Your task to perform on an android device: see tabs open on other devices in the chrome app Image 0: 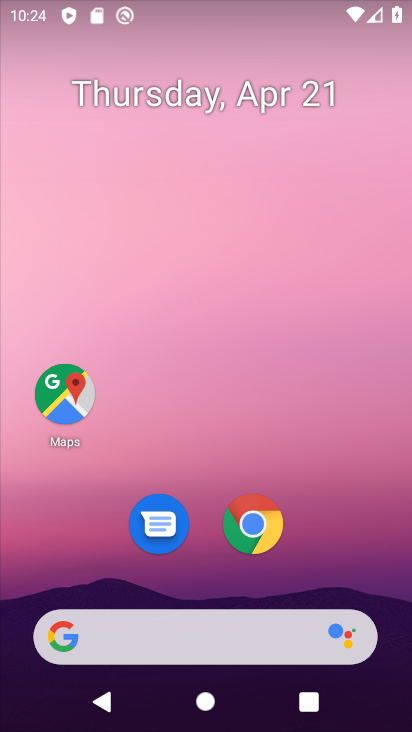
Step 0: click (259, 532)
Your task to perform on an android device: see tabs open on other devices in the chrome app Image 1: 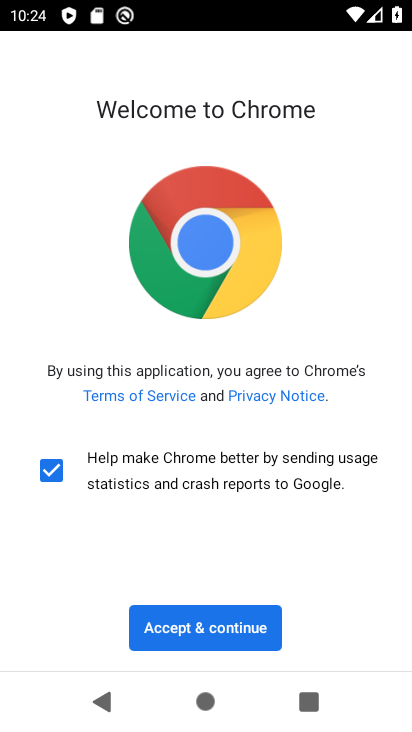
Step 1: click (248, 623)
Your task to perform on an android device: see tabs open on other devices in the chrome app Image 2: 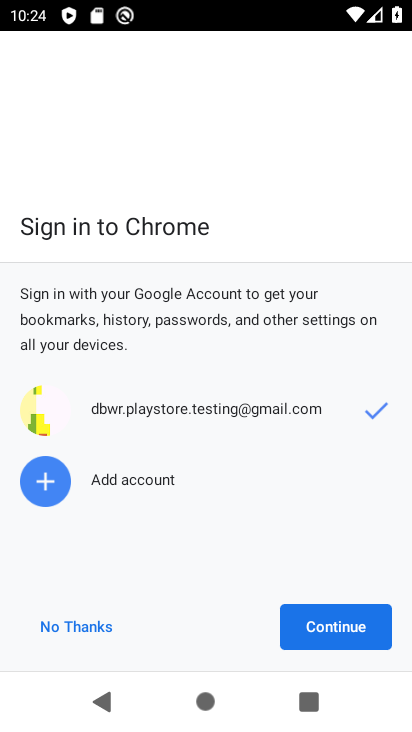
Step 2: click (306, 631)
Your task to perform on an android device: see tabs open on other devices in the chrome app Image 3: 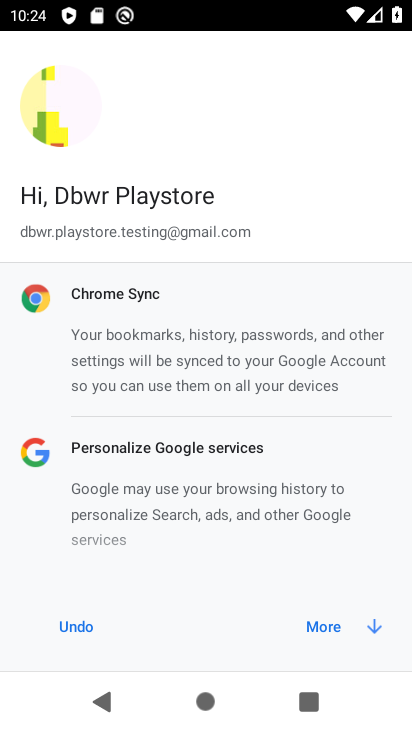
Step 3: click (314, 622)
Your task to perform on an android device: see tabs open on other devices in the chrome app Image 4: 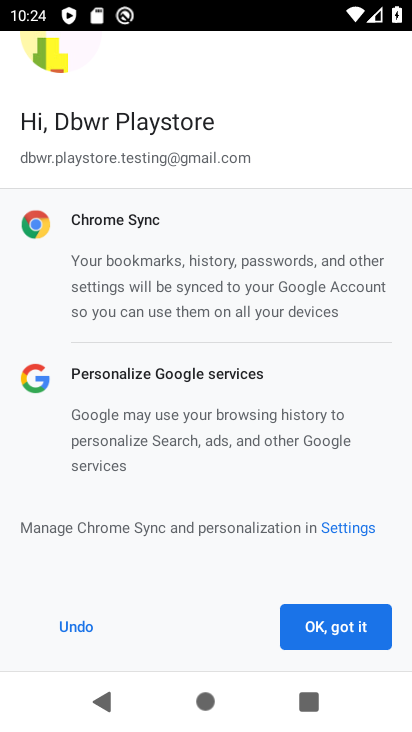
Step 4: click (325, 626)
Your task to perform on an android device: see tabs open on other devices in the chrome app Image 5: 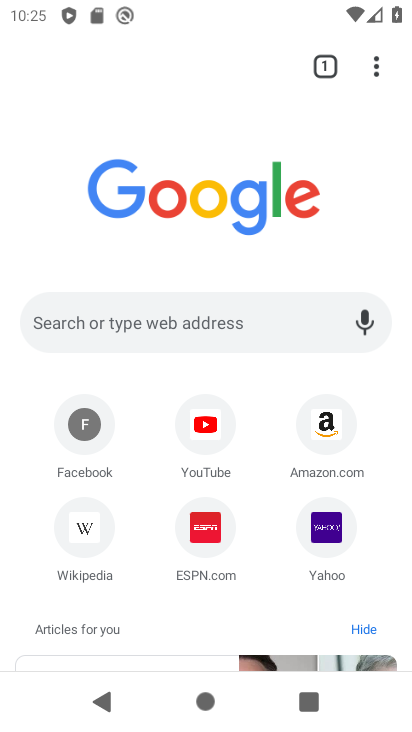
Step 5: task complete